Your task to perform on an android device: Go to location settings Image 0: 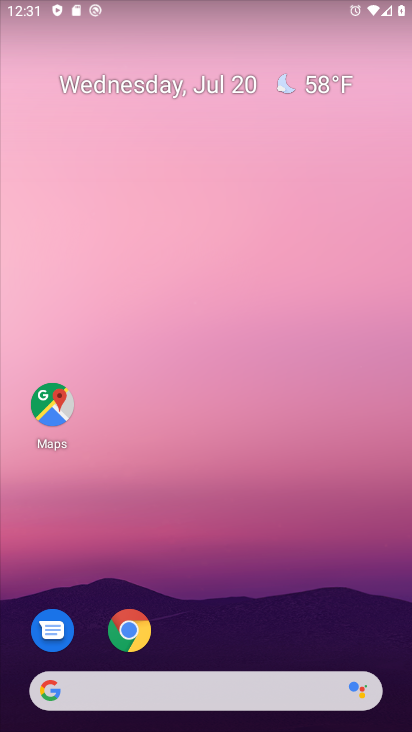
Step 0: press home button
Your task to perform on an android device: Go to location settings Image 1: 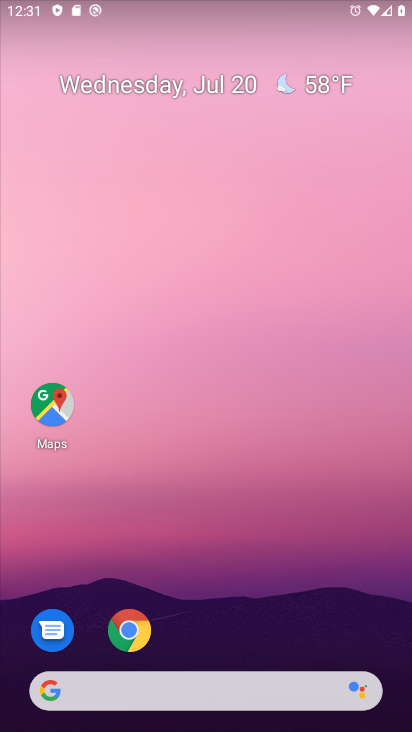
Step 1: drag from (151, 680) to (319, 17)
Your task to perform on an android device: Go to location settings Image 2: 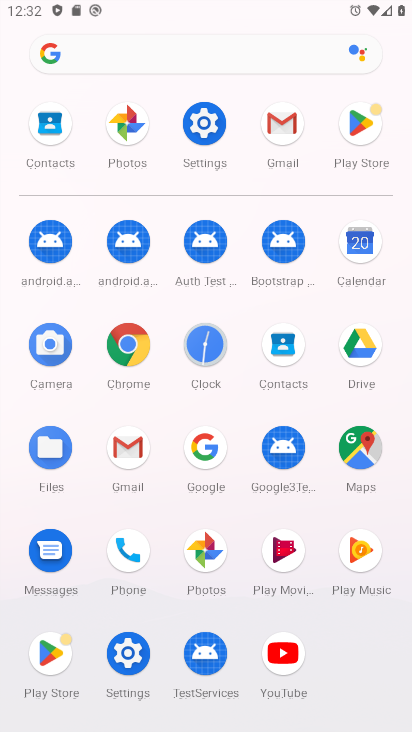
Step 2: click (213, 129)
Your task to perform on an android device: Go to location settings Image 3: 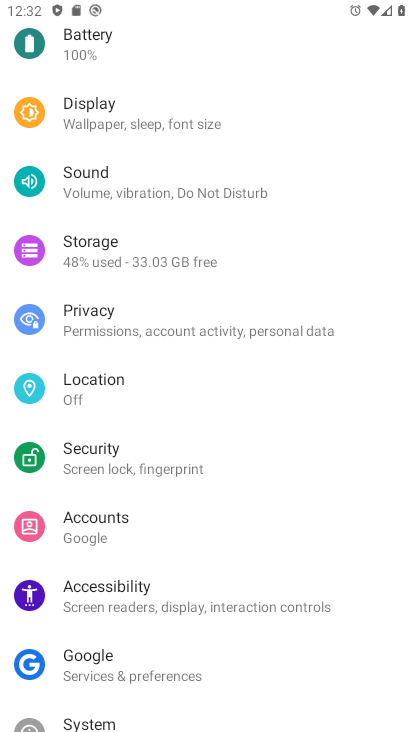
Step 3: click (111, 381)
Your task to perform on an android device: Go to location settings Image 4: 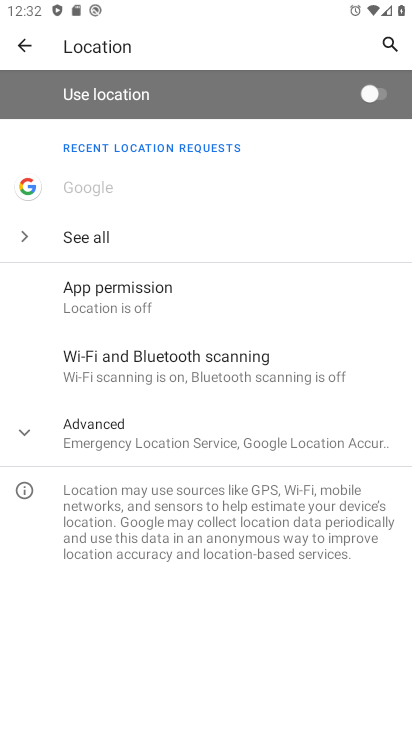
Step 4: task complete